Your task to perform on an android device: Go to Wikipedia Image 0: 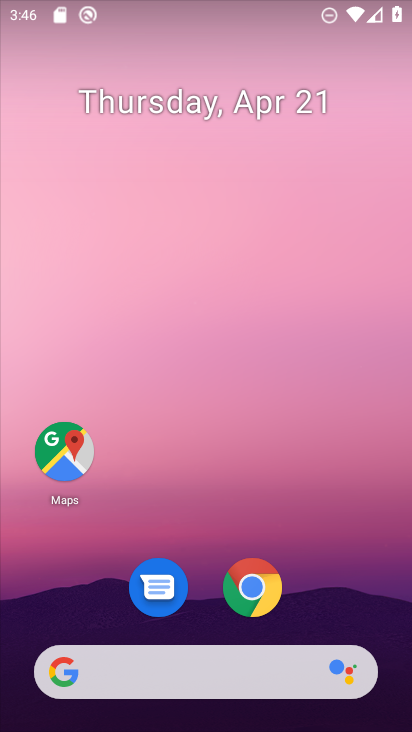
Step 0: click (253, 590)
Your task to perform on an android device: Go to Wikipedia Image 1: 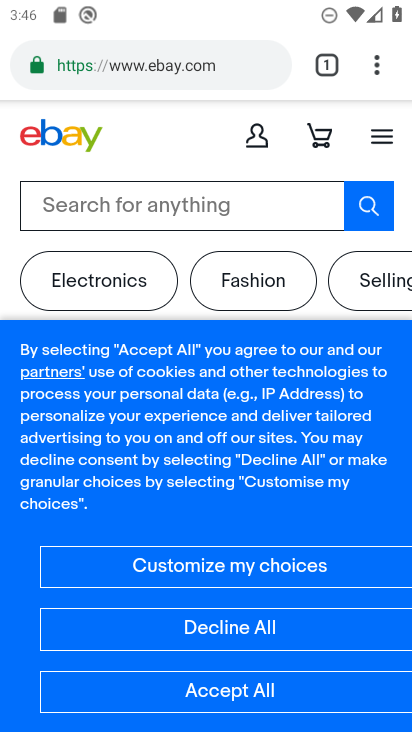
Step 1: click (167, 71)
Your task to perform on an android device: Go to Wikipedia Image 2: 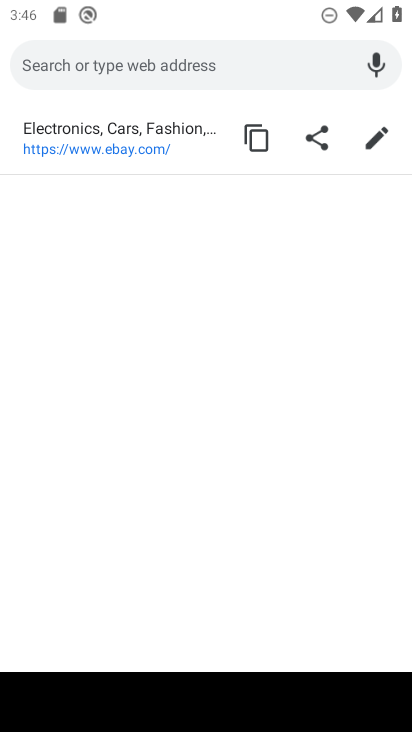
Step 2: type "wikipedia"
Your task to perform on an android device: Go to Wikipedia Image 3: 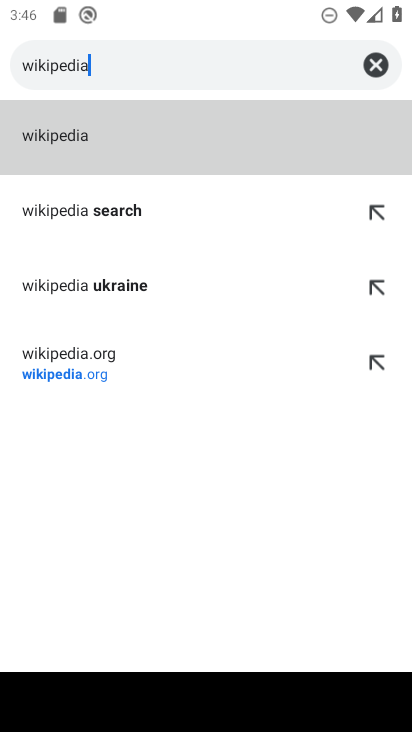
Step 3: click (47, 130)
Your task to perform on an android device: Go to Wikipedia Image 4: 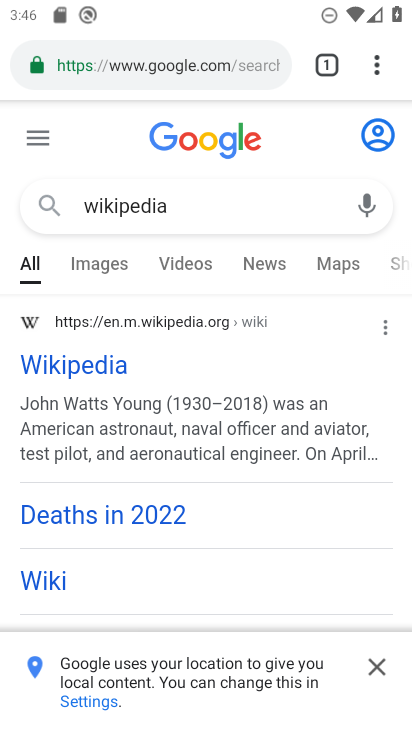
Step 4: click (70, 367)
Your task to perform on an android device: Go to Wikipedia Image 5: 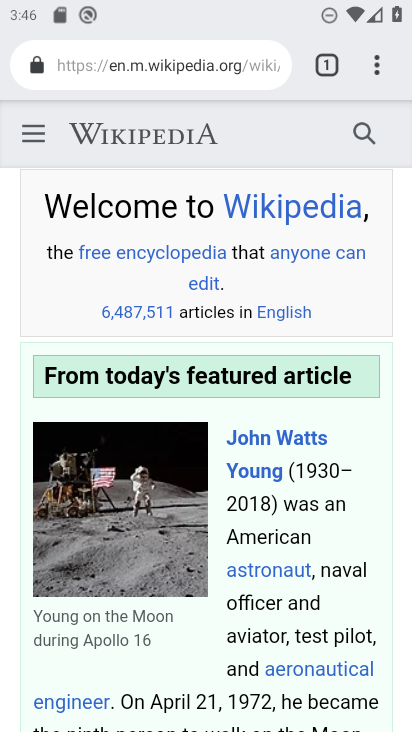
Step 5: task complete